Your task to perform on an android device: Open display settings Image 0: 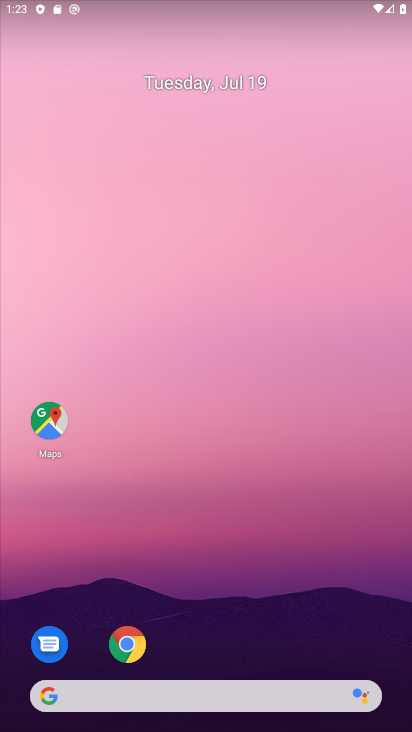
Step 0: drag from (177, 540) to (192, 119)
Your task to perform on an android device: Open display settings Image 1: 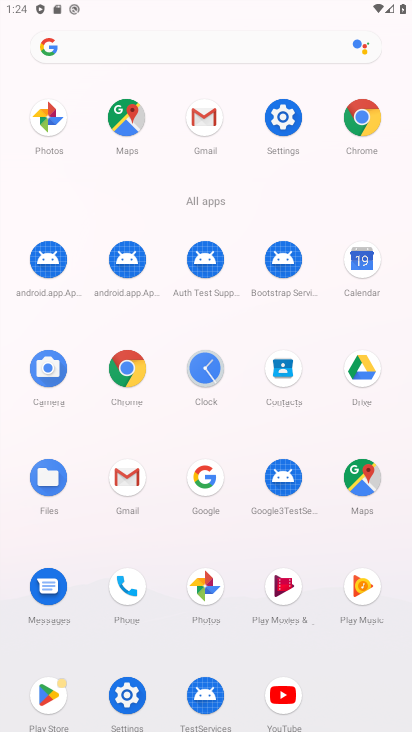
Step 1: click (293, 109)
Your task to perform on an android device: Open display settings Image 2: 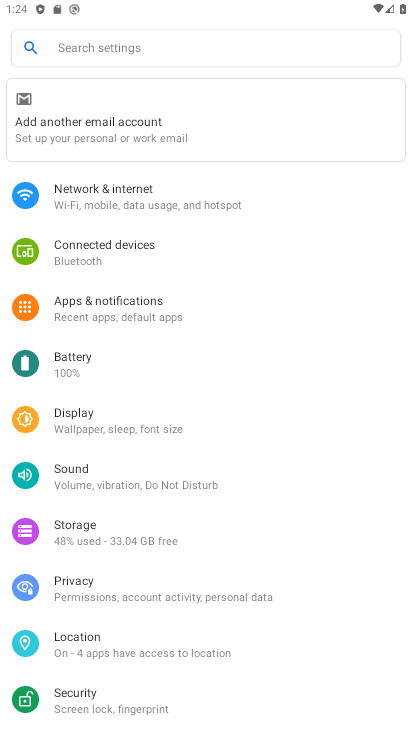
Step 2: click (85, 420)
Your task to perform on an android device: Open display settings Image 3: 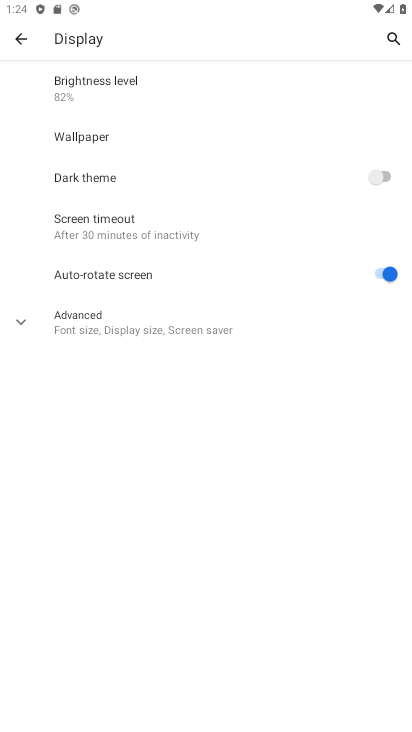
Step 3: task complete